Your task to perform on an android device: Open the map Image 0: 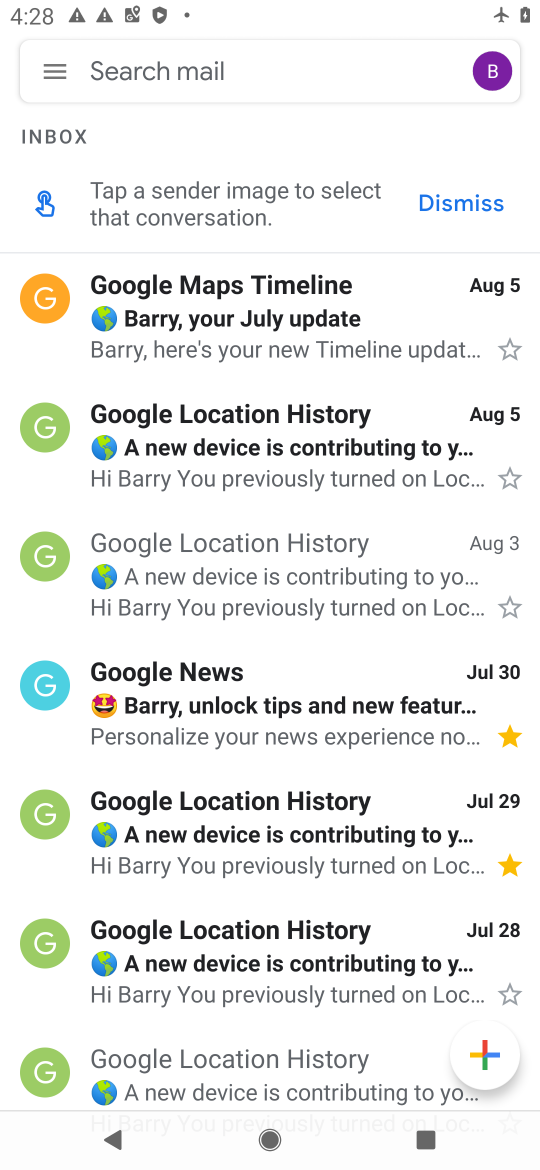
Step 0: press home button
Your task to perform on an android device: Open the map Image 1: 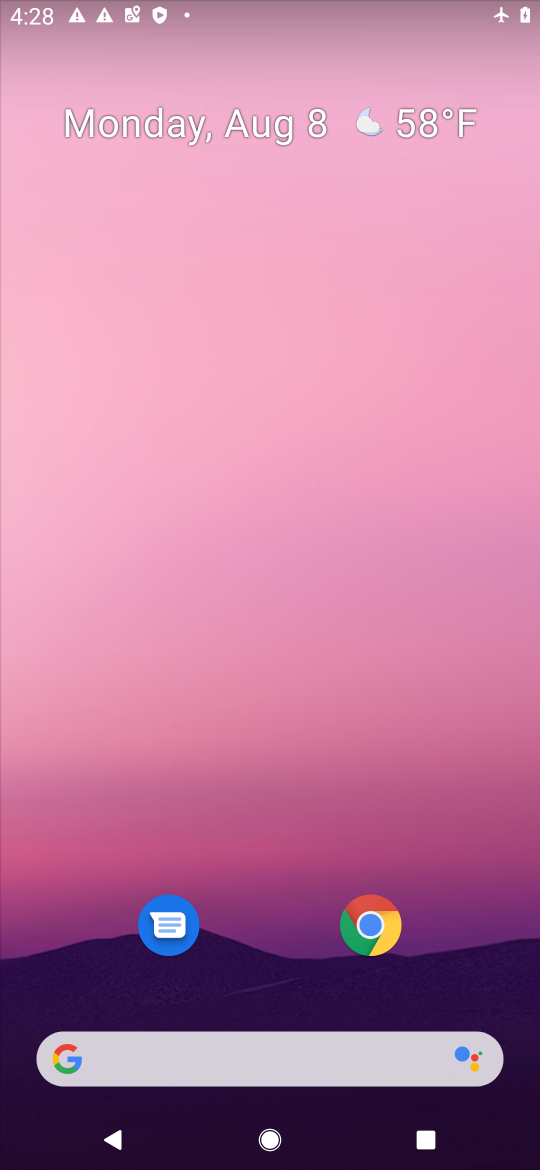
Step 1: drag from (219, 811) to (229, 183)
Your task to perform on an android device: Open the map Image 2: 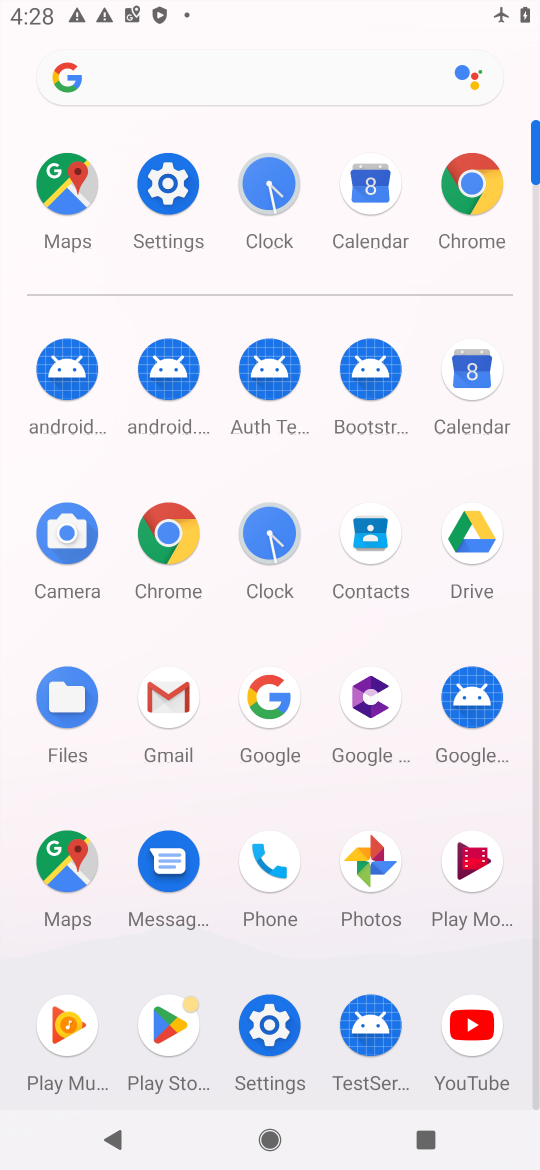
Step 2: click (66, 866)
Your task to perform on an android device: Open the map Image 3: 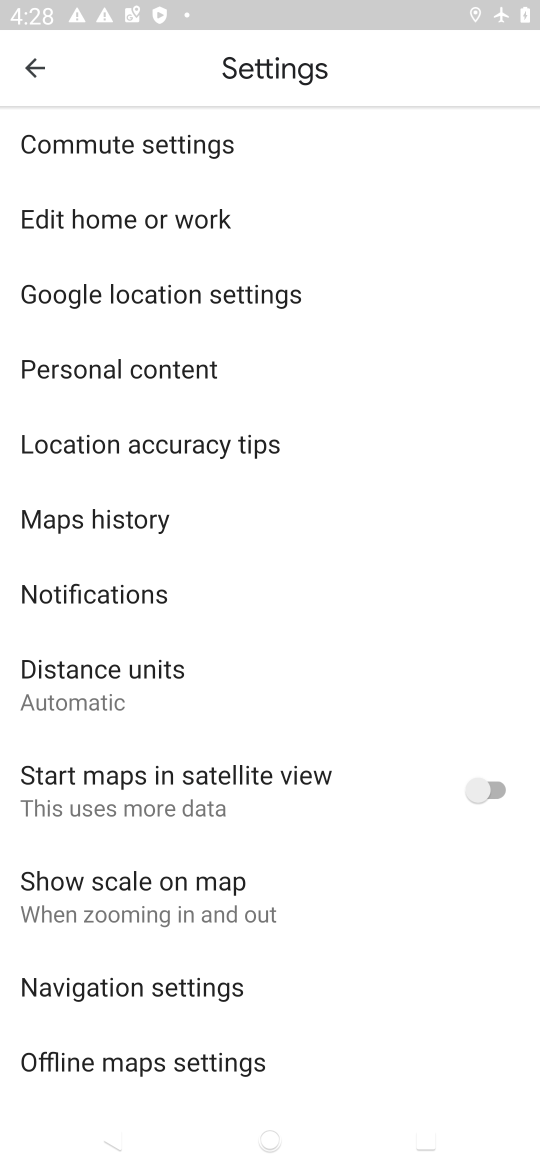
Step 3: click (29, 72)
Your task to perform on an android device: Open the map Image 4: 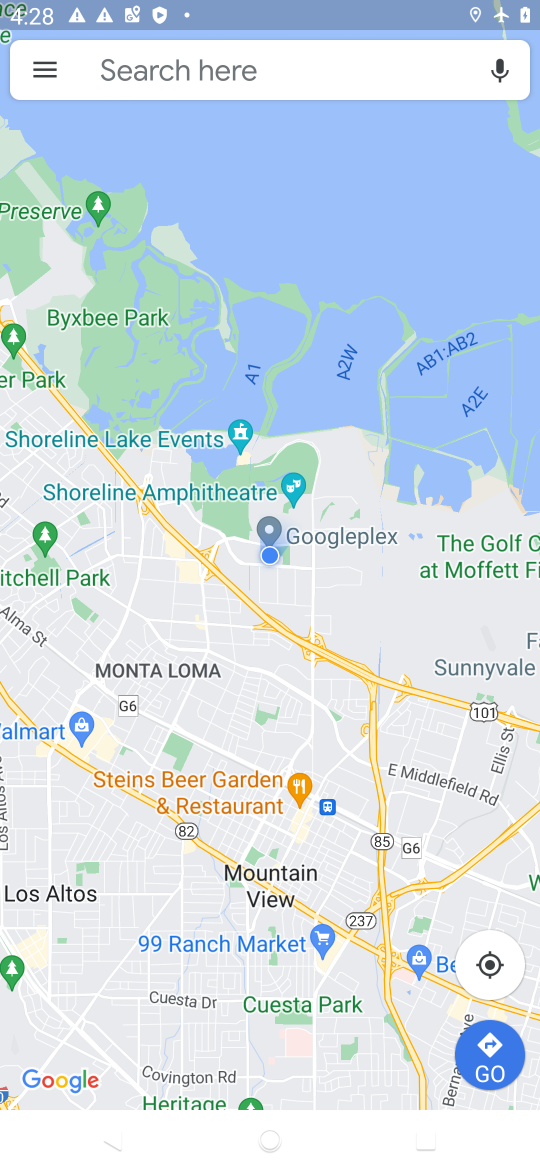
Step 4: task complete